Your task to perform on an android device: change the upload size in google photos Image 0: 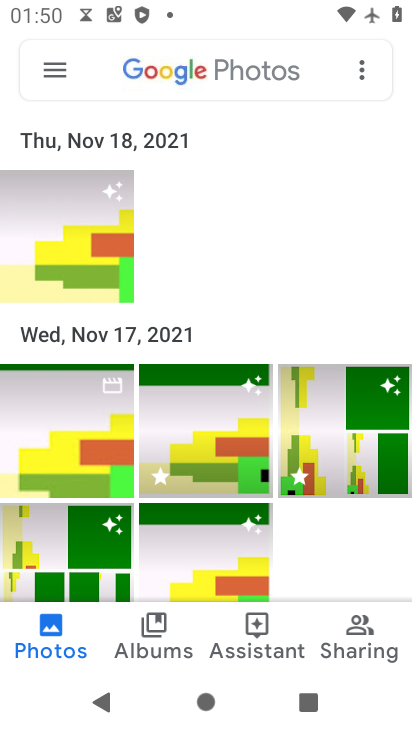
Step 0: press home button
Your task to perform on an android device: change the upload size in google photos Image 1: 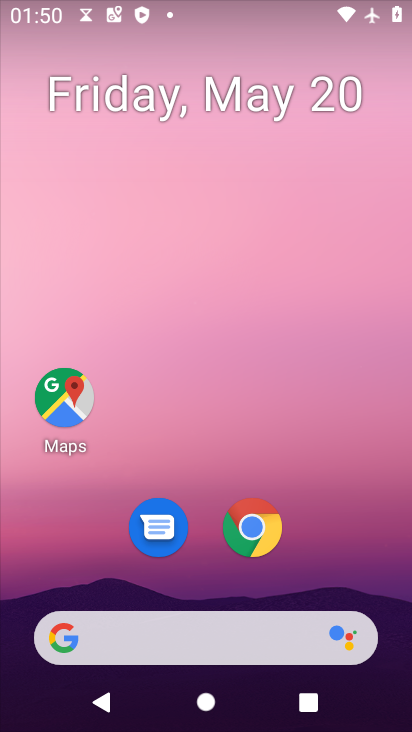
Step 1: drag from (159, 646) to (308, 178)
Your task to perform on an android device: change the upload size in google photos Image 2: 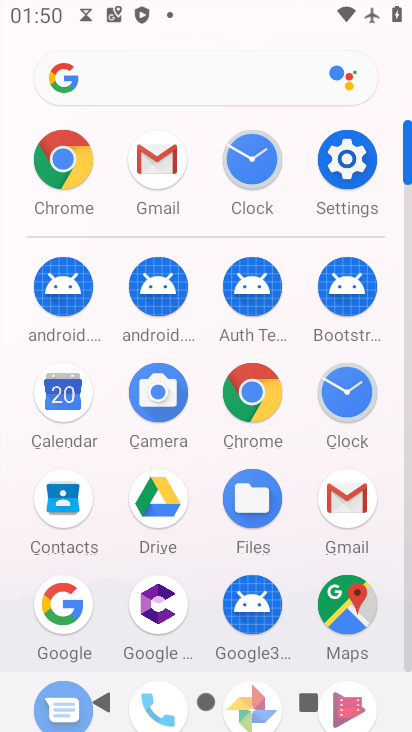
Step 2: drag from (216, 635) to (373, 352)
Your task to perform on an android device: change the upload size in google photos Image 3: 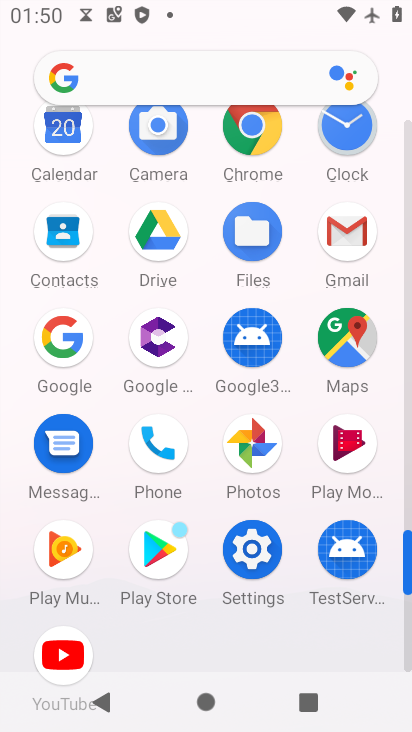
Step 3: click (254, 457)
Your task to perform on an android device: change the upload size in google photos Image 4: 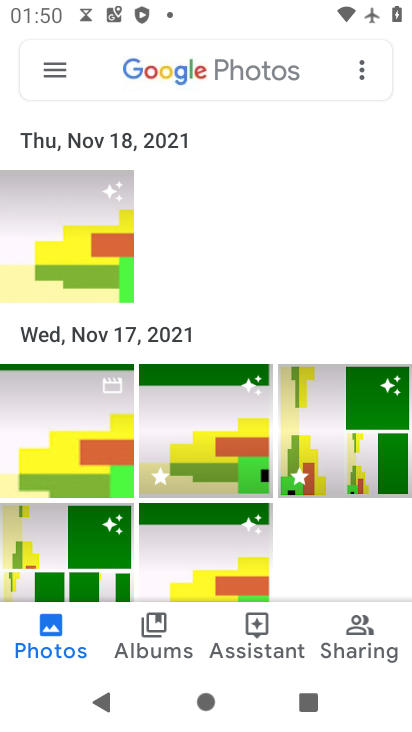
Step 4: click (54, 73)
Your task to perform on an android device: change the upload size in google photos Image 5: 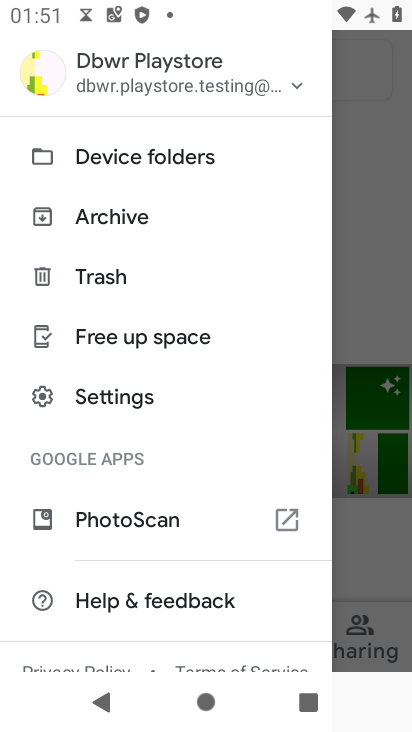
Step 5: drag from (169, 583) to (202, 486)
Your task to perform on an android device: change the upload size in google photos Image 6: 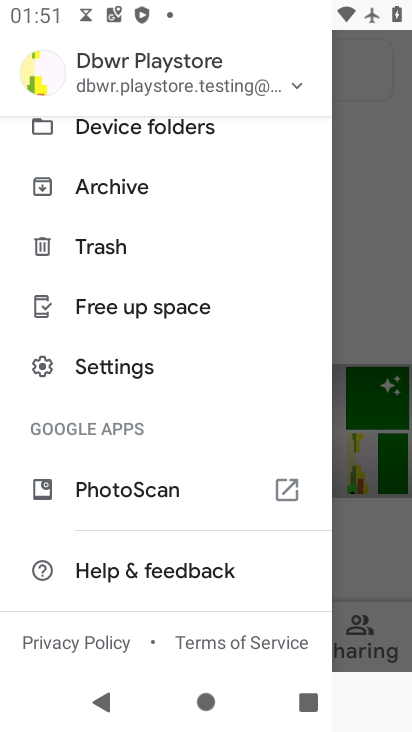
Step 6: click (134, 369)
Your task to perform on an android device: change the upload size in google photos Image 7: 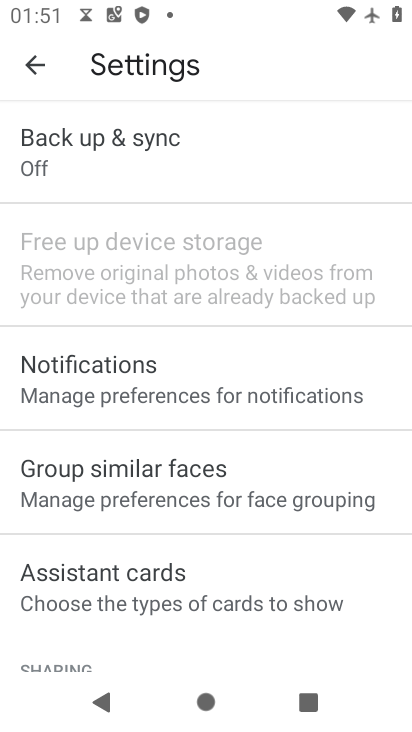
Step 7: click (140, 170)
Your task to perform on an android device: change the upload size in google photos Image 8: 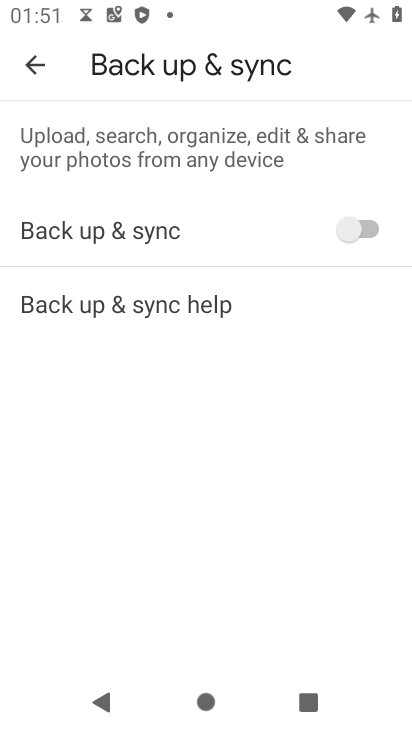
Step 8: click (369, 228)
Your task to perform on an android device: change the upload size in google photos Image 9: 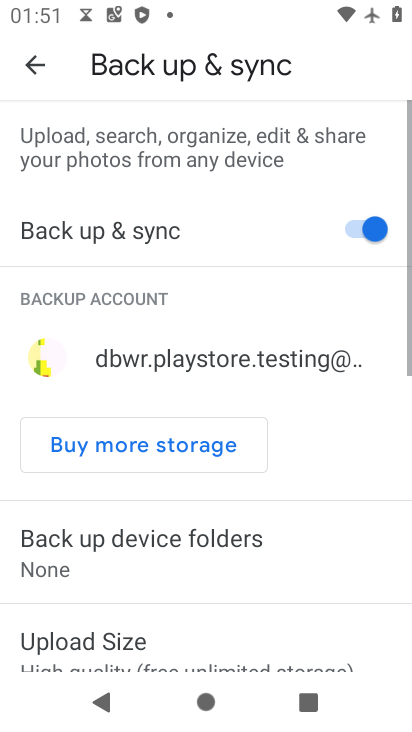
Step 9: drag from (155, 587) to (267, 346)
Your task to perform on an android device: change the upload size in google photos Image 10: 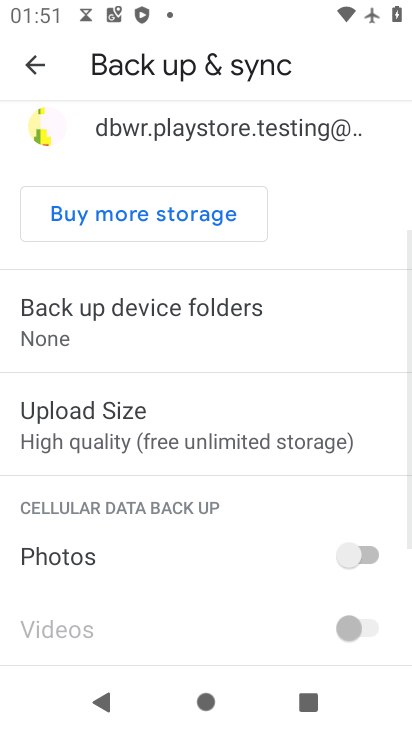
Step 10: click (117, 424)
Your task to perform on an android device: change the upload size in google photos Image 11: 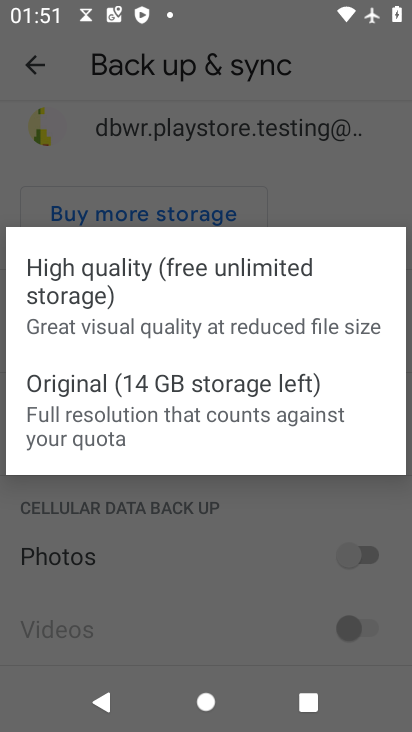
Step 11: click (93, 395)
Your task to perform on an android device: change the upload size in google photos Image 12: 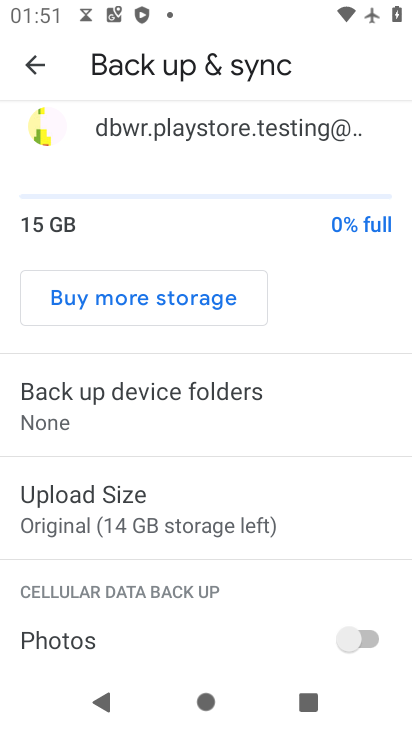
Step 12: task complete